Your task to perform on an android device: turn off wifi Image 0: 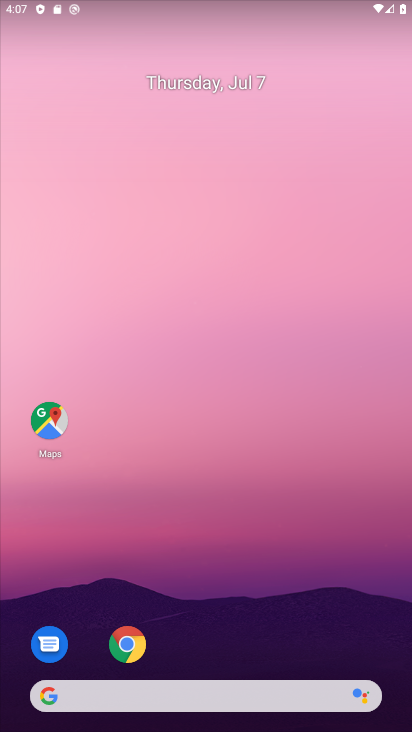
Step 0: drag from (243, 607) to (258, 163)
Your task to perform on an android device: turn off wifi Image 1: 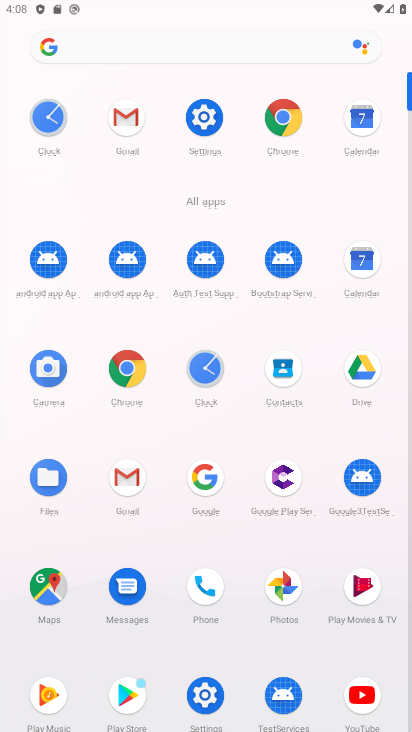
Step 1: click (189, 114)
Your task to perform on an android device: turn off wifi Image 2: 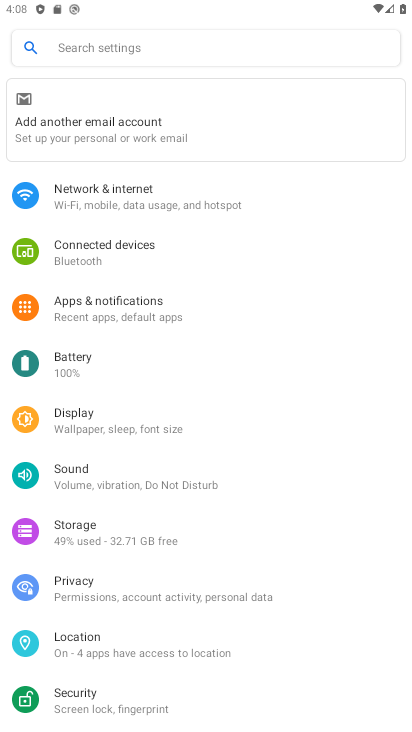
Step 2: click (199, 189)
Your task to perform on an android device: turn off wifi Image 3: 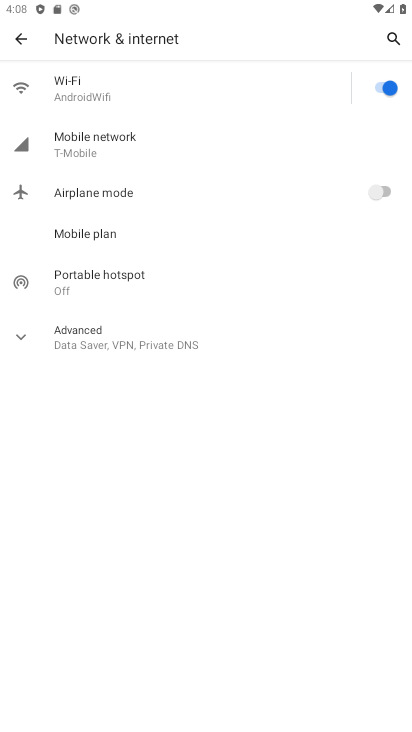
Step 3: click (381, 83)
Your task to perform on an android device: turn off wifi Image 4: 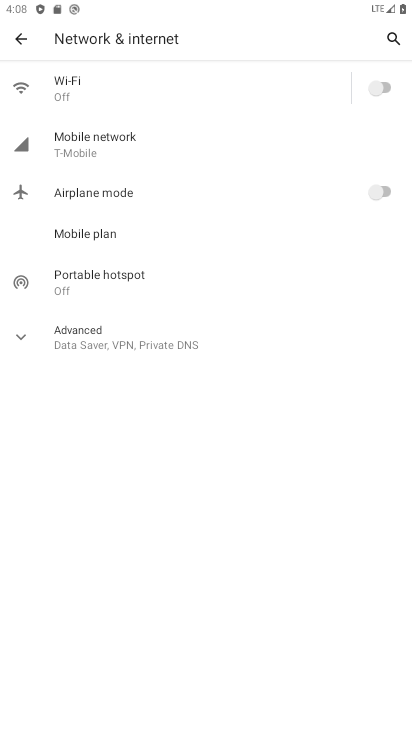
Step 4: task complete